Your task to perform on an android device: View the shopping cart on costco. Search for sony triple a on costco, select the first entry, add it to the cart, then select checkout. Image 0: 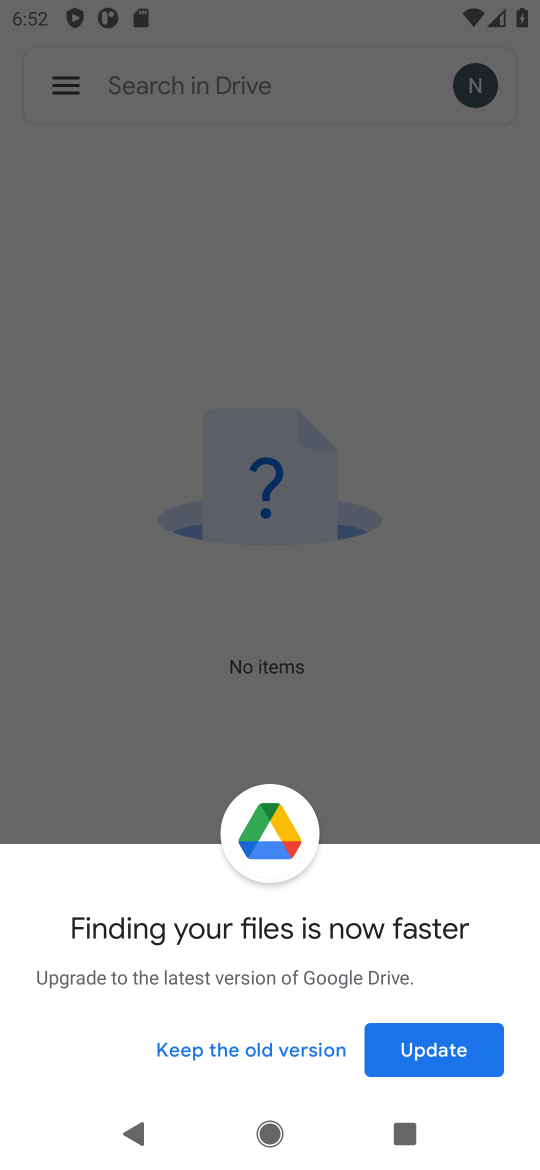
Step 0: press home button
Your task to perform on an android device: View the shopping cart on costco. Search for sony triple a on costco, select the first entry, add it to the cart, then select checkout. Image 1: 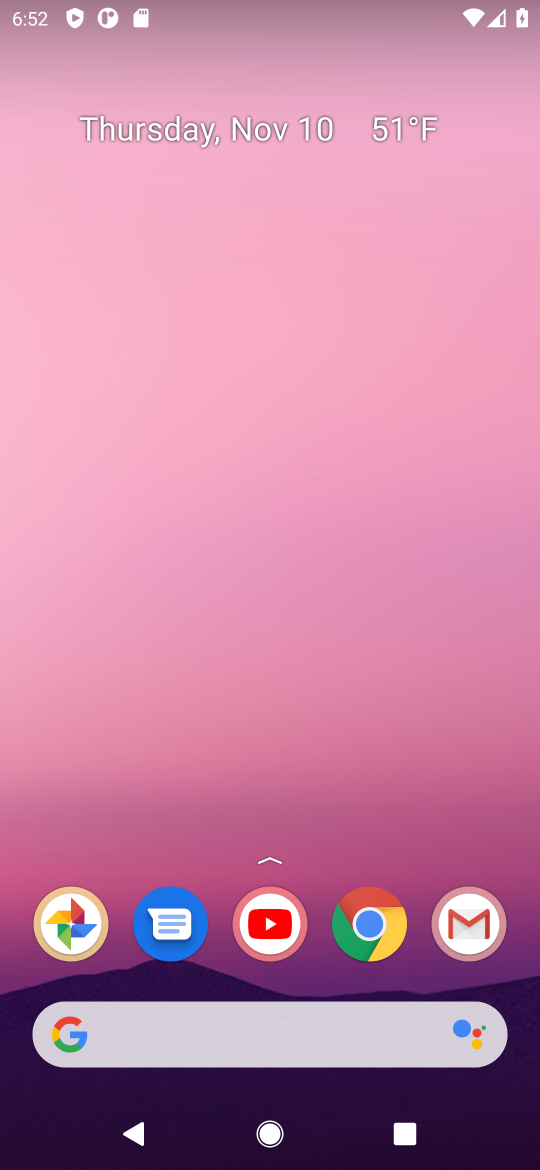
Step 1: click (362, 932)
Your task to perform on an android device: View the shopping cart on costco. Search for sony triple a on costco, select the first entry, add it to the cart, then select checkout. Image 2: 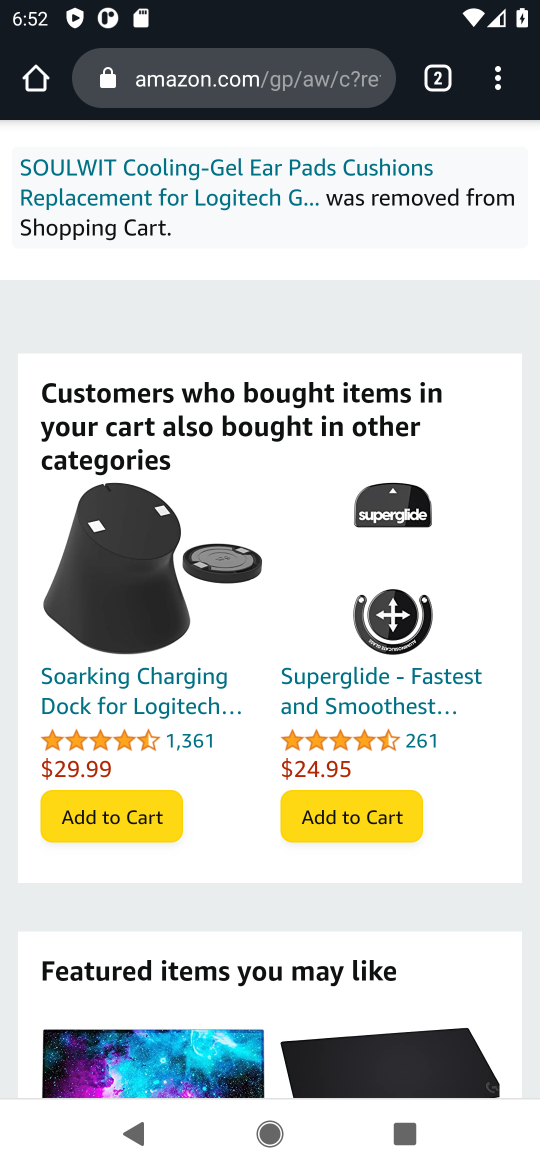
Step 2: click (220, 92)
Your task to perform on an android device: View the shopping cart on costco. Search for sony triple a on costco, select the first entry, add it to the cart, then select checkout. Image 3: 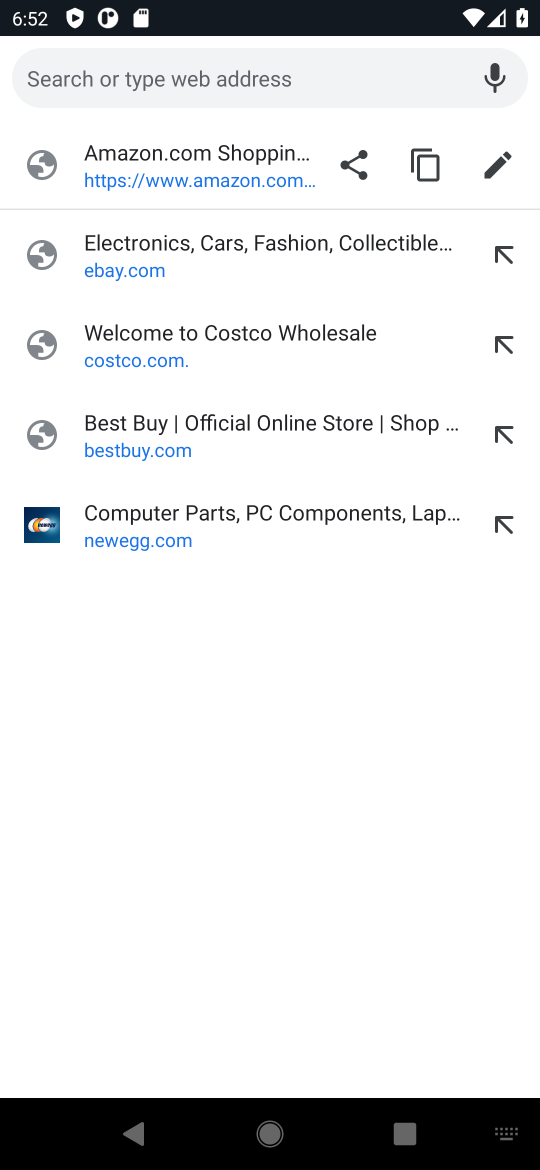
Step 3: click (125, 333)
Your task to perform on an android device: View the shopping cart on costco. Search for sony triple a on costco, select the first entry, add it to the cart, then select checkout. Image 4: 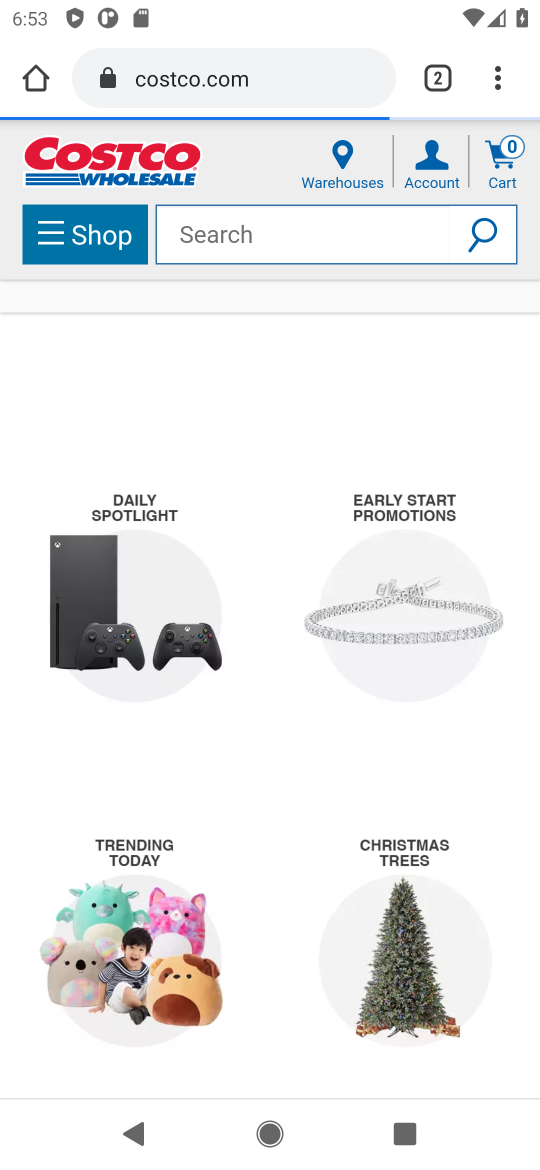
Step 4: click (495, 179)
Your task to perform on an android device: View the shopping cart on costco. Search for sony triple a on costco, select the first entry, add it to the cart, then select checkout. Image 5: 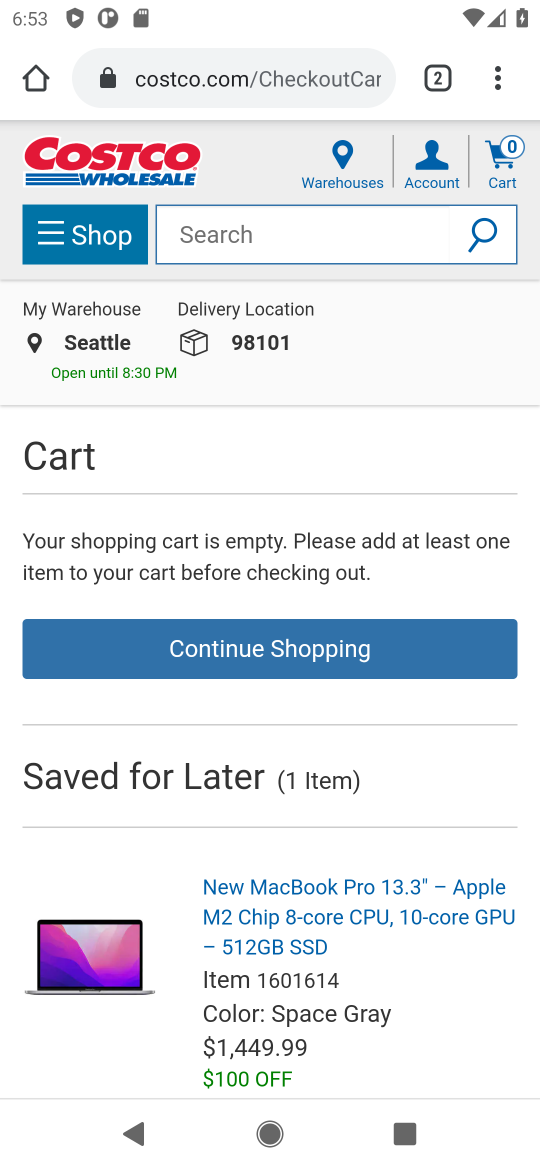
Step 5: click (217, 242)
Your task to perform on an android device: View the shopping cart on costco. Search for sony triple a on costco, select the first entry, add it to the cart, then select checkout. Image 6: 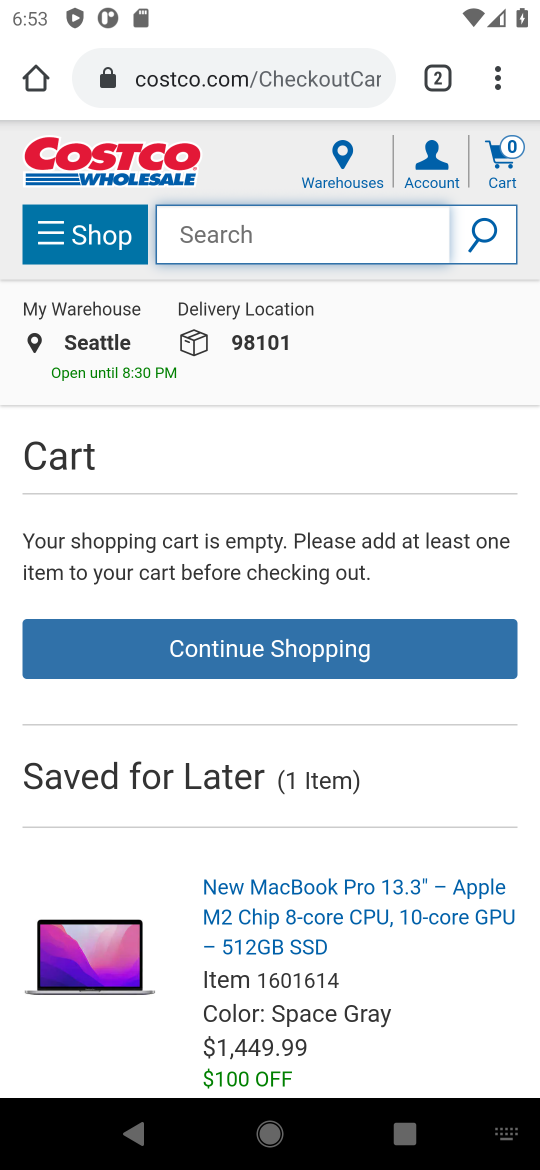
Step 6: type "sony triple a"
Your task to perform on an android device: View the shopping cart on costco. Search for sony triple a on costco, select the first entry, add it to the cart, then select checkout. Image 7: 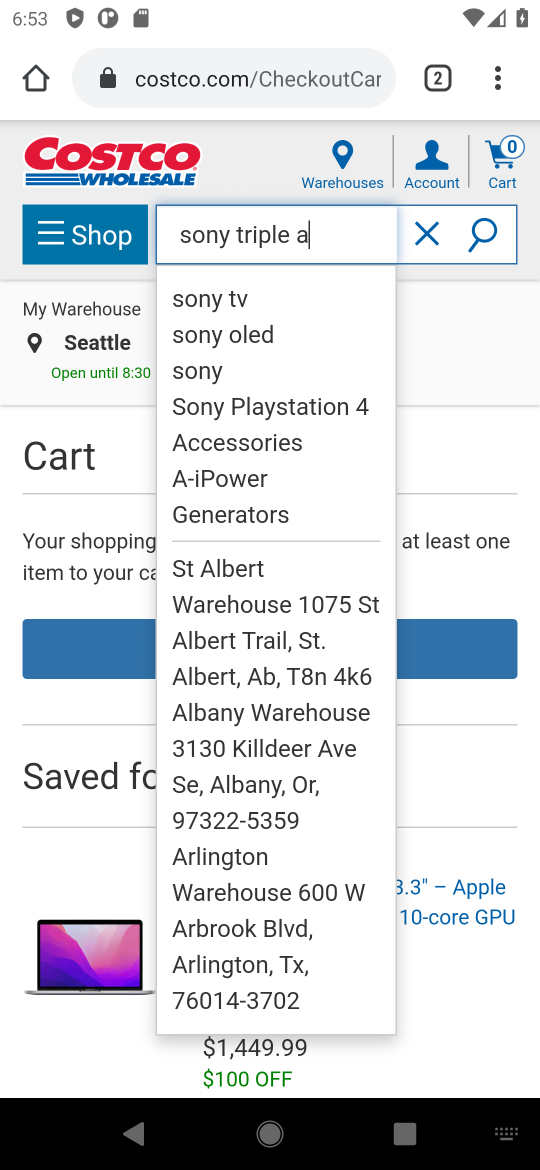
Step 7: click (474, 243)
Your task to perform on an android device: View the shopping cart on costco. Search for sony triple a on costco, select the first entry, add it to the cart, then select checkout. Image 8: 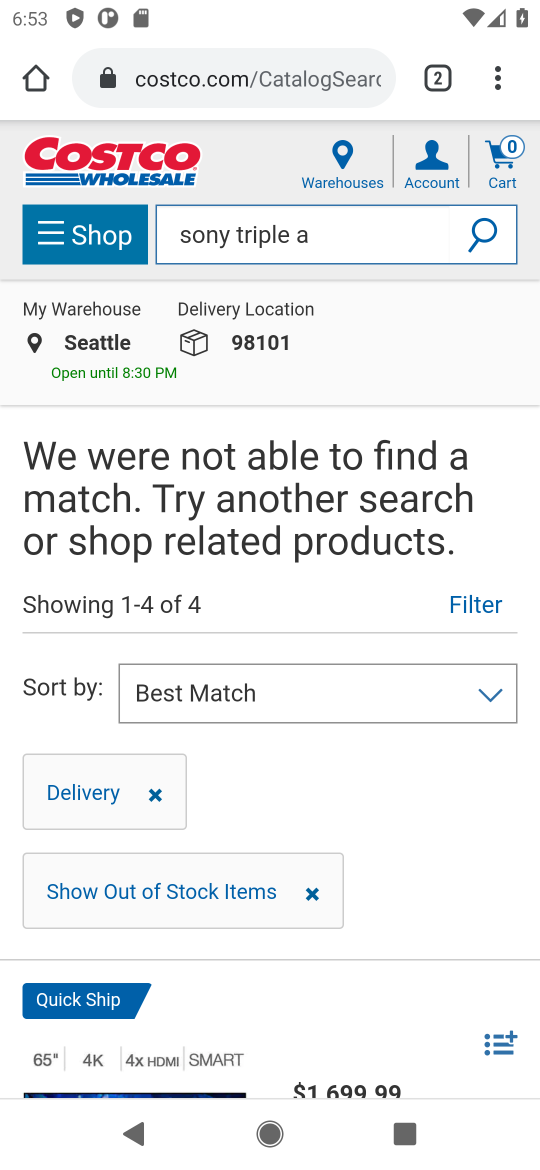
Step 8: task complete